Your task to perform on an android device: Go to network settings Image 0: 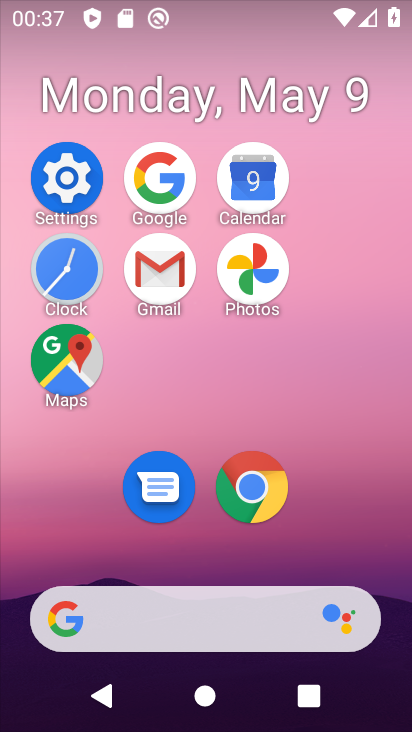
Step 0: click (89, 187)
Your task to perform on an android device: Go to network settings Image 1: 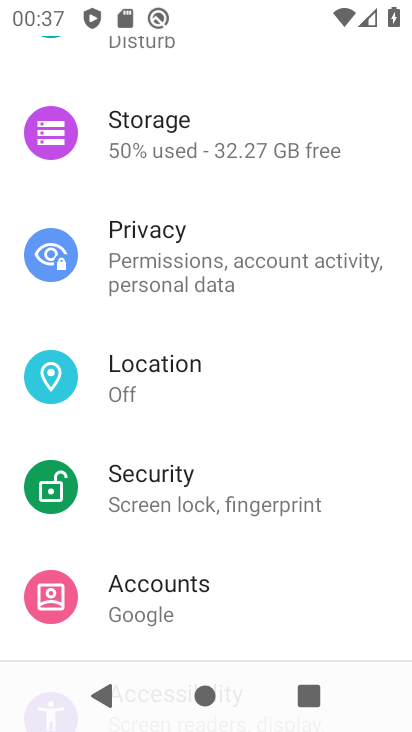
Step 1: drag from (267, 191) to (283, 506)
Your task to perform on an android device: Go to network settings Image 2: 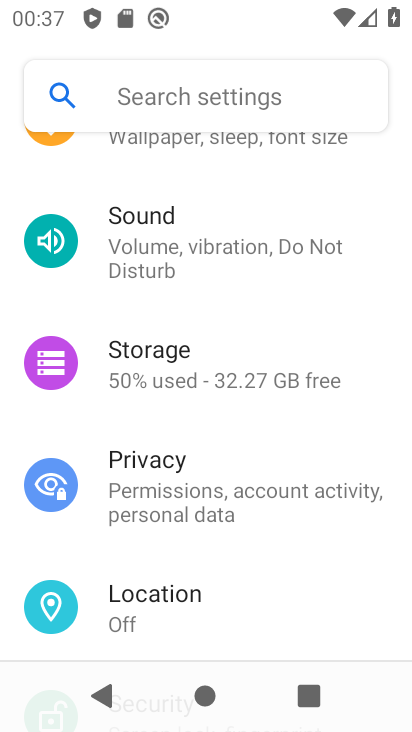
Step 2: drag from (345, 171) to (341, 494)
Your task to perform on an android device: Go to network settings Image 3: 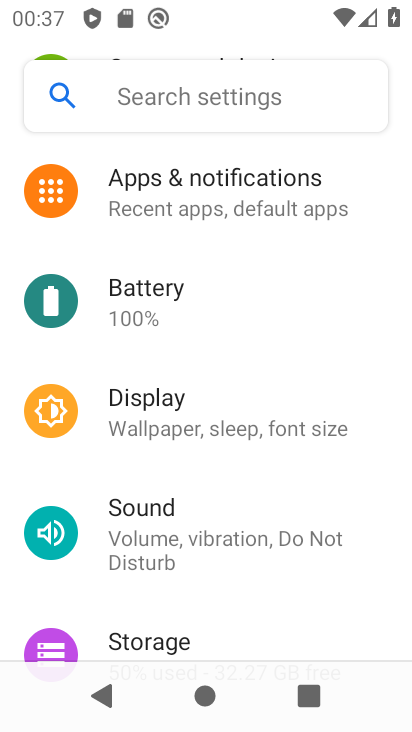
Step 3: drag from (337, 289) to (329, 573)
Your task to perform on an android device: Go to network settings Image 4: 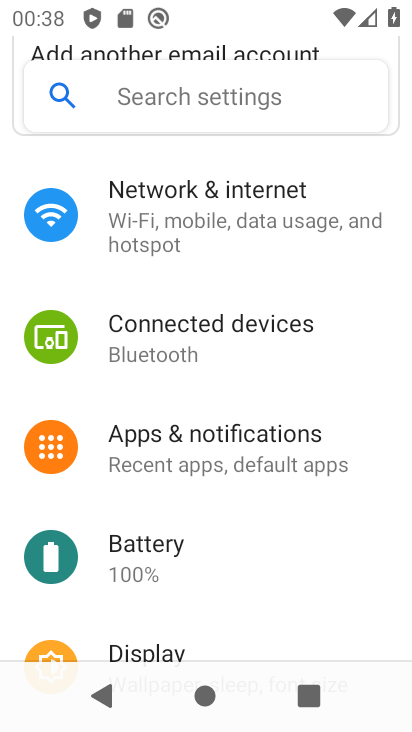
Step 4: click (303, 211)
Your task to perform on an android device: Go to network settings Image 5: 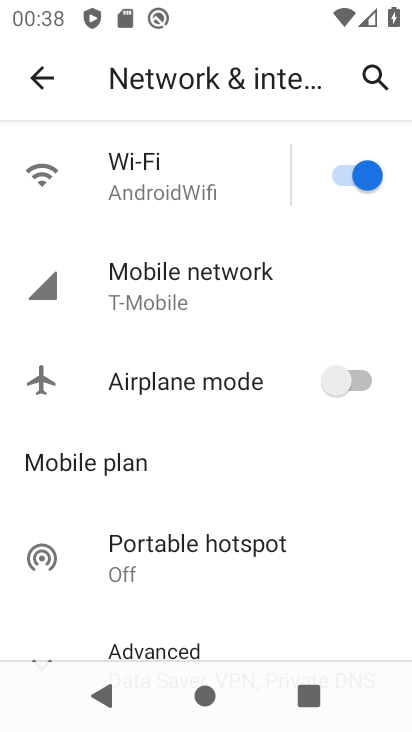
Step 5: click (271, 290)
Your task to perform on an android device: Go to network settings Image 6: 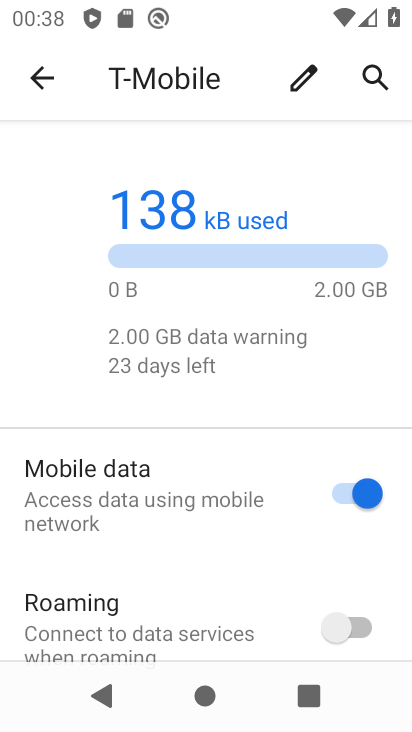
Step 6: task complete